Your task to perform on an android device: change notifications settings Image 0: 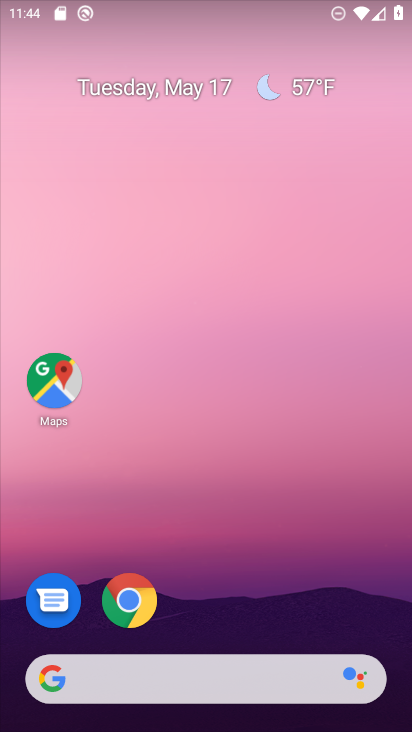
Step 0: click (140, 20)
Your task to perform on an android device: change notifications settings Image 1: 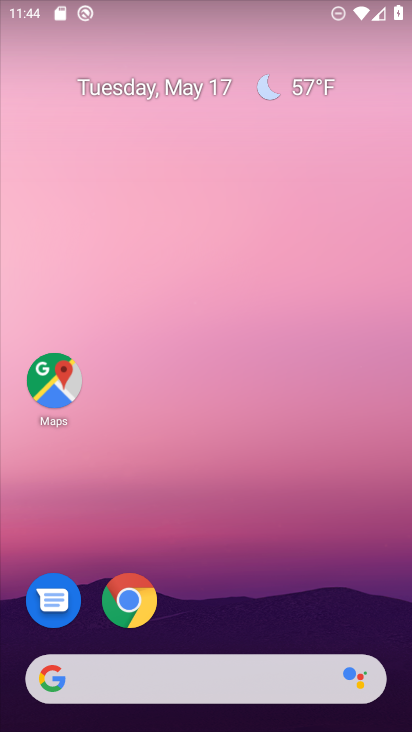
Step 1: click (204, 130)
Your task to perform on an android device: change notifications settings Image 2: 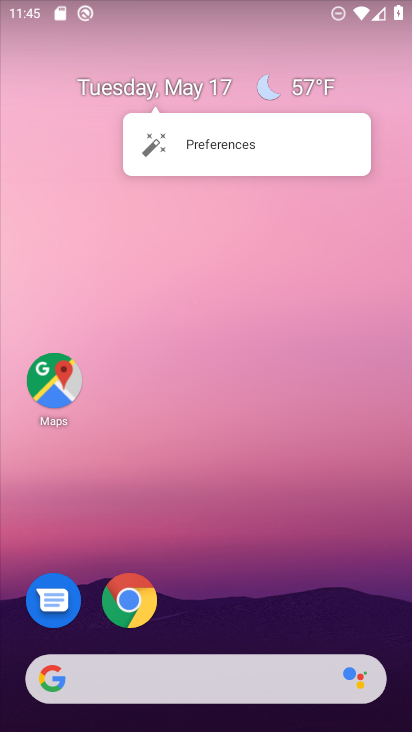
Step 2: drag from (254, 654) to (172, 5)
Your task to perform on an android device: change notifications settings Image 3: 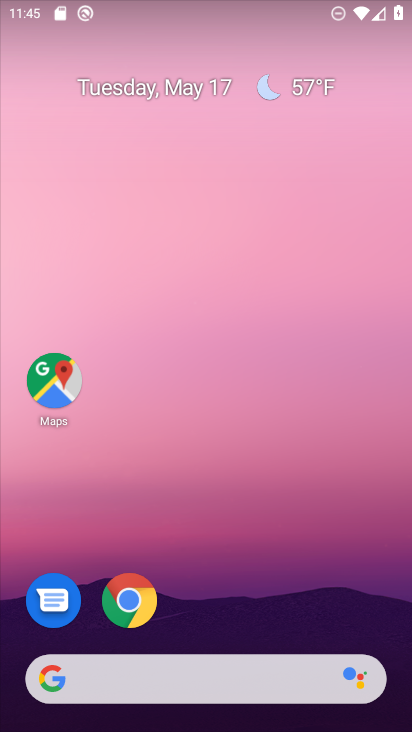
Step 3: drag from (199, 536) to (143, 11)
Your task to perform on an android device: change notifications settings Image 4: 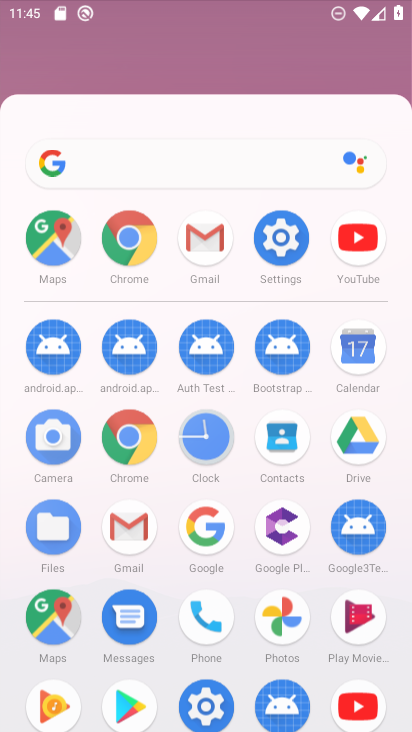
Step 4: drag from (243, 598) to (235, 7)
Your task to perform on an android device: change notifications settings Image 5: 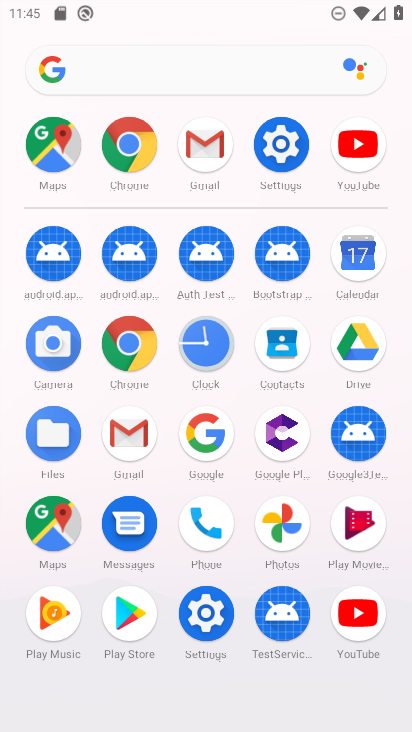
Step 5: click (284, 153)
Your task to perform on an android device: change notifications settings Image 6: 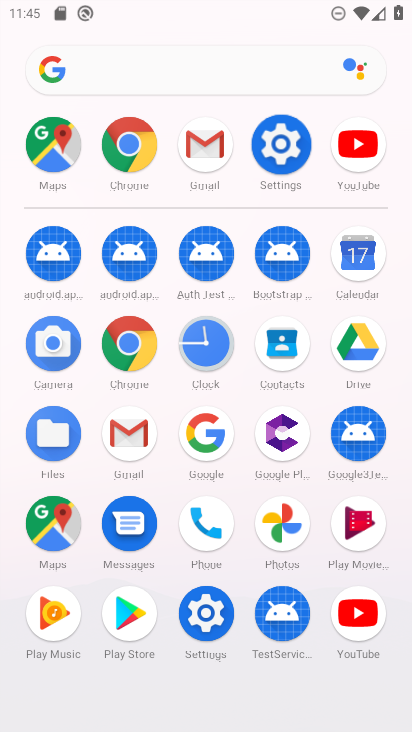
Step 6: click (284, 152)
Your task to perform on an android device: change notifications settings Image 7: 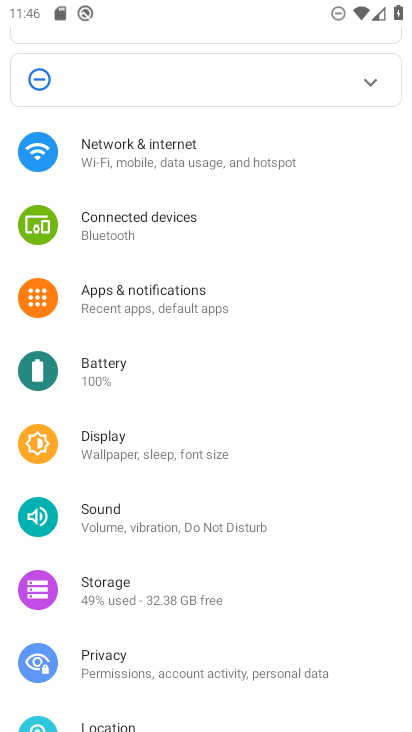
Step 7: click (150, 292)
Your task to perform on an android device: change notifications settings Image 8: 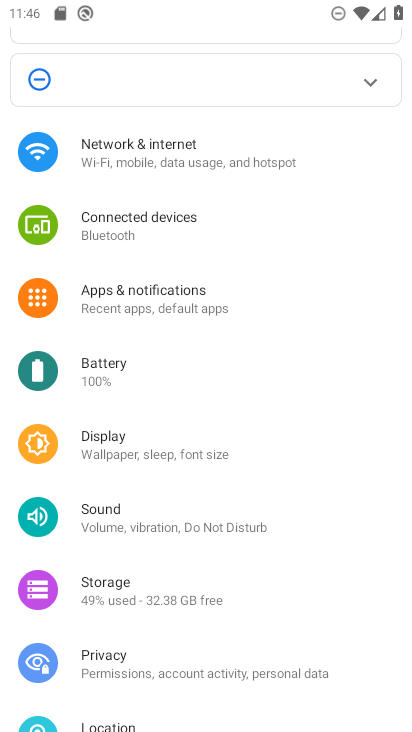
Step 8: click (150, 292)
Your task to perform on an android device: change notifications settings Image 9: 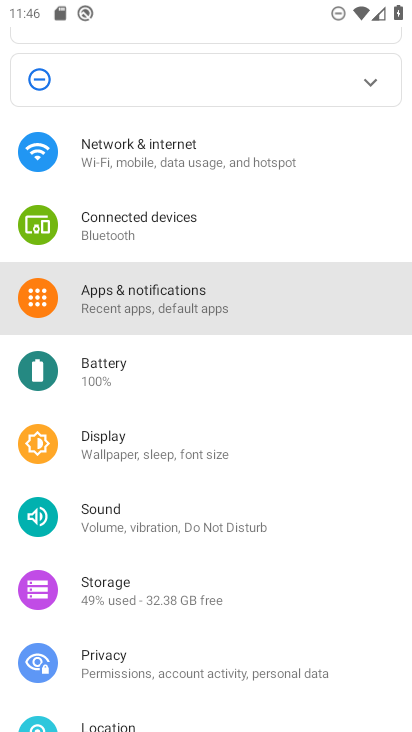
Step 9: click (150, 292)
Your task to perform on an android device: change notifications settings Image 10: 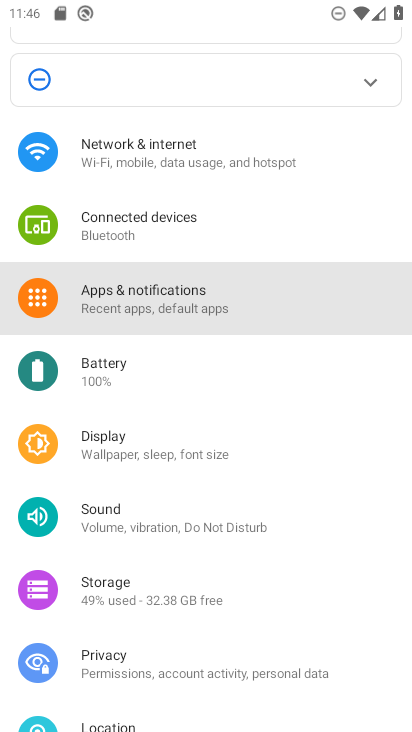
Step 10: click (150, 292)
Your task to perform on an android device: change notifications settings Image 11: 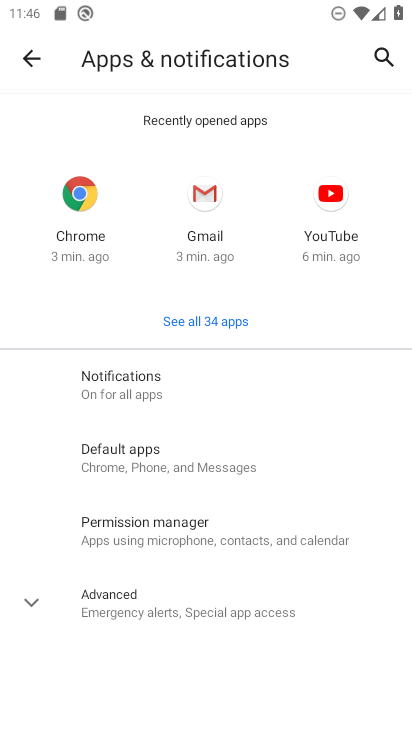
Step 11: click (112, 388)
Your task to perform on an android device: change notifications settings Image 12: 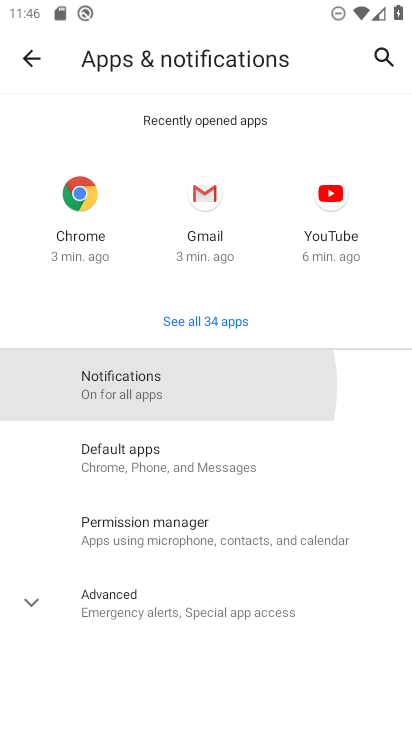
Step 12: click (113, 388)
Your task to perform on an android device: change notifications settings Image 13: 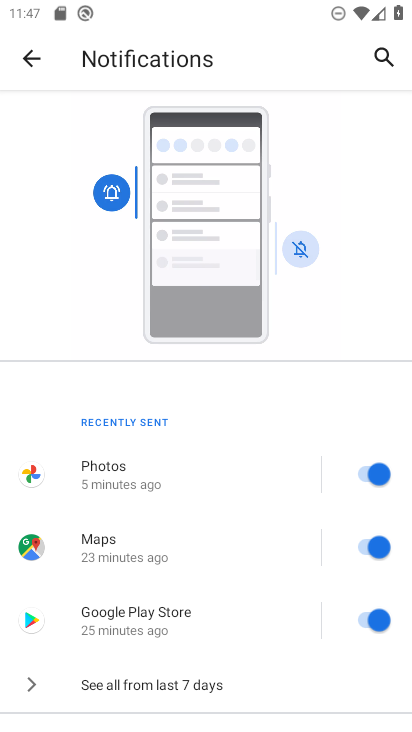
Step 13: click (119, 475)
Your task to perform on an android device: change notifications settings Image 14: 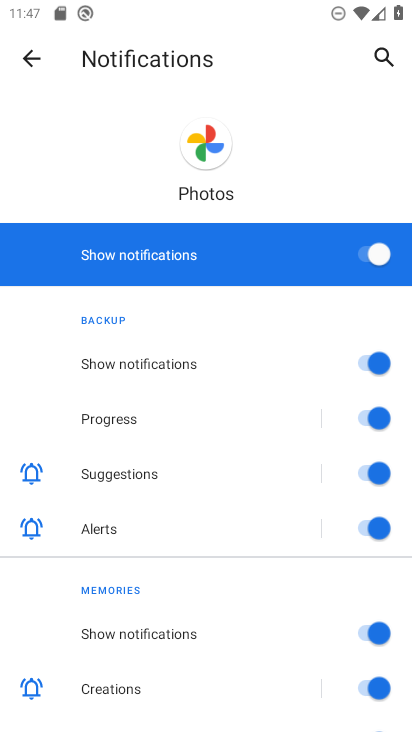
Step 14: click (382, 250)
Your task to perform on an android device: change notifications settings Image 15: 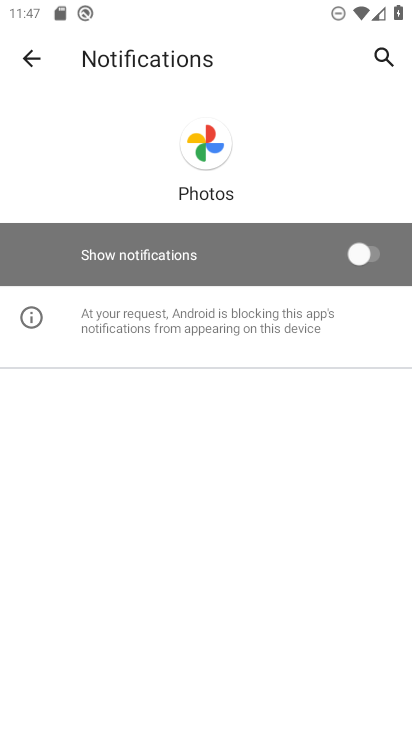
Step 15: click (23, 50)
Your task to perform on an android device: change notifications settings Image 16: 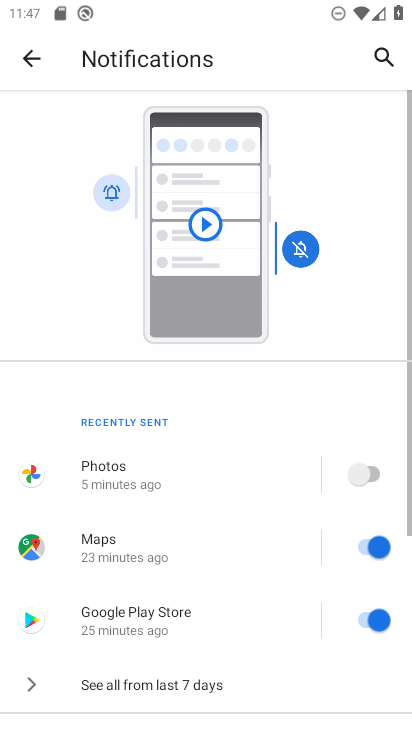
Step 16: click (132, 541)
Your task to perform on an android device: change notifications settings Image 17: 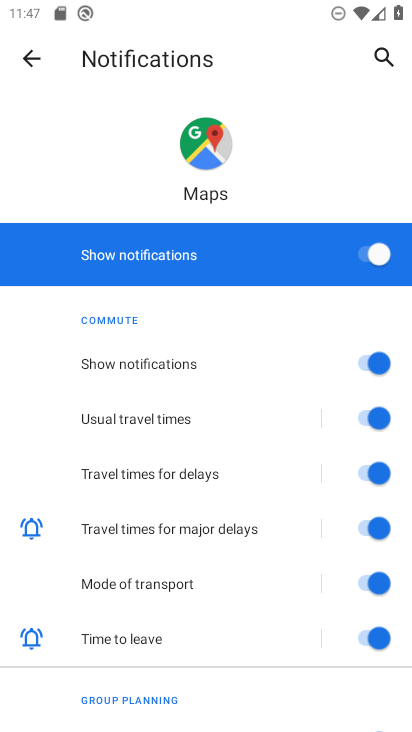
Step 17: click (388, 252)
Your task to perform on an android device: change notifications settings Image 18: 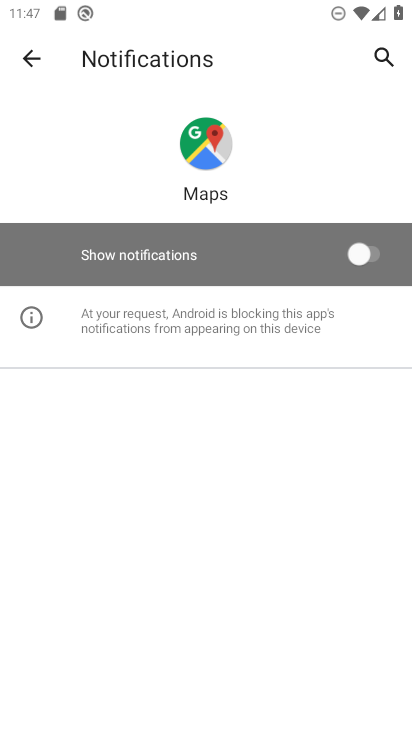
Step 18: click (26, 59)
Your task to perform on an android device: change notifications settings Image 19: 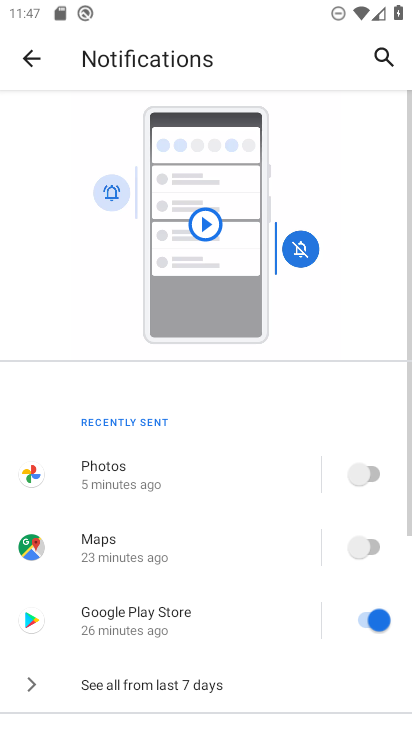
Step 19: click (376, 619)
Your task to perform on an android device: change notifications settings Image 20: 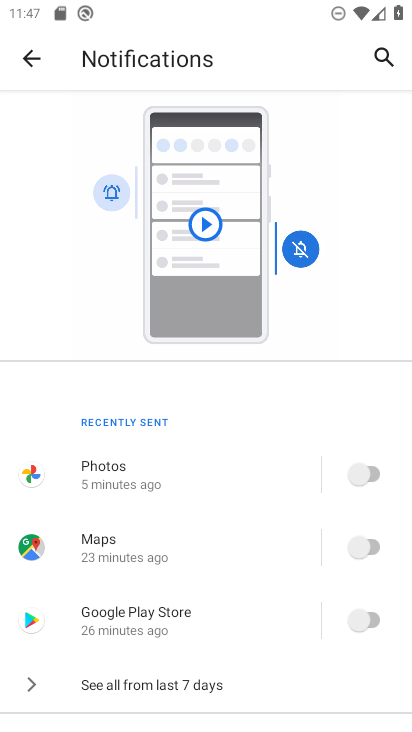
Step 20: task complete